Your task to perform on an android device: open chrome and create a bookmark for the current page Image 0: 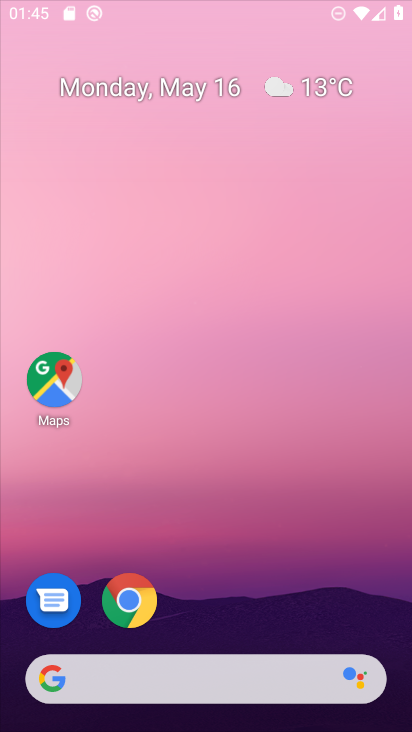
Step 0: click (236, 68)
Your task to perform on an android device: open chrome and create a bookmark for the current page Image 1: 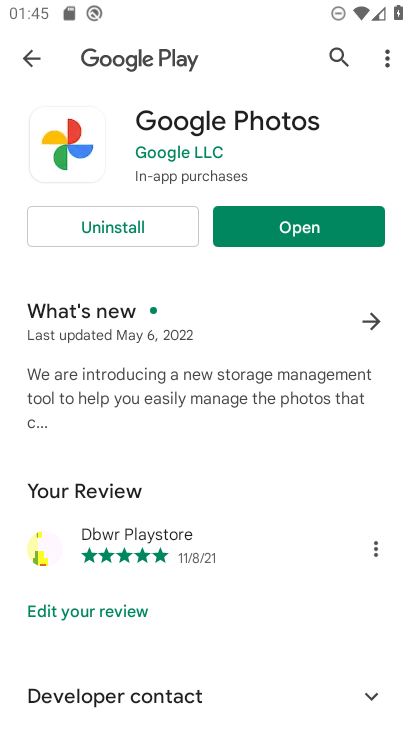
Step 1: press home button
Your task to perform on an android device: open chrome and create a bookmark for the current page Image 2: 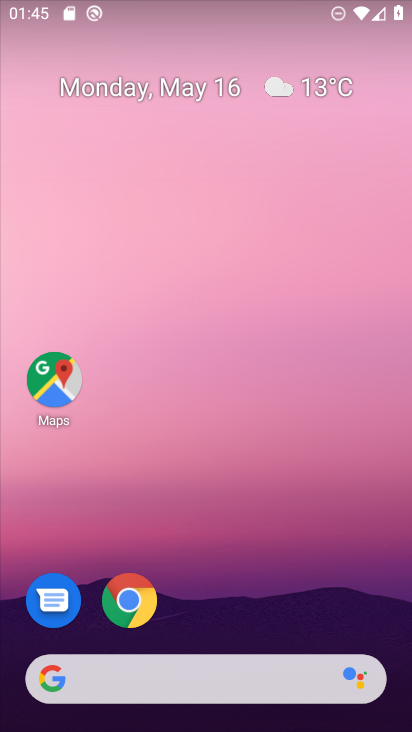
Step 2: click (128, 589)
Your task to perform on an android device: open chrome and create a bookmark for the current page Image 3: 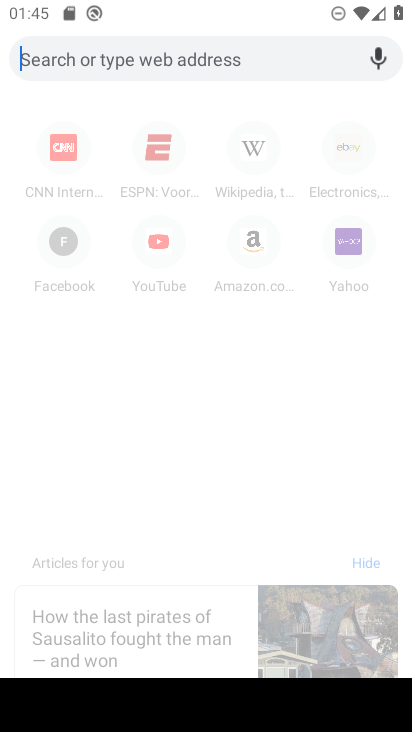
Step 3: press back button
Your task to perform on an android device: open chrome and create a bookmark for the current page Image 4: 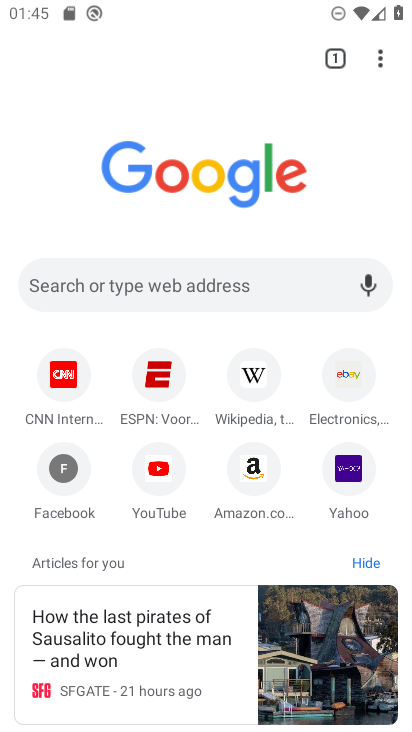
Step 4: click (381, 43)
Your task to perform on an android device: open chrome and create a bookmark for the current page Image 5: 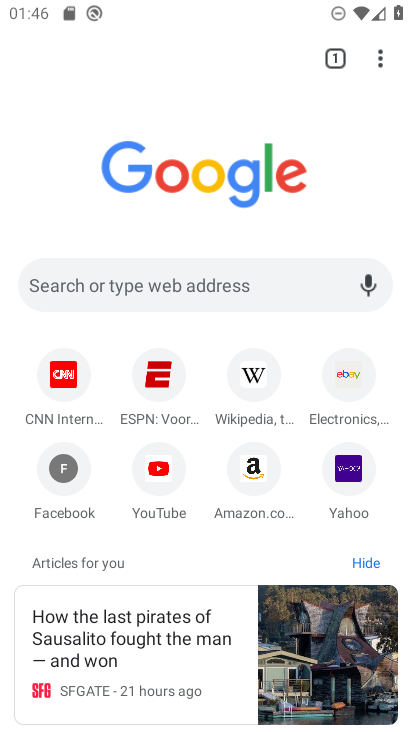
Step 5: click (376, 57)
Your task to perform on an android device: open chrome and create a bookmark for the current page Image 6: 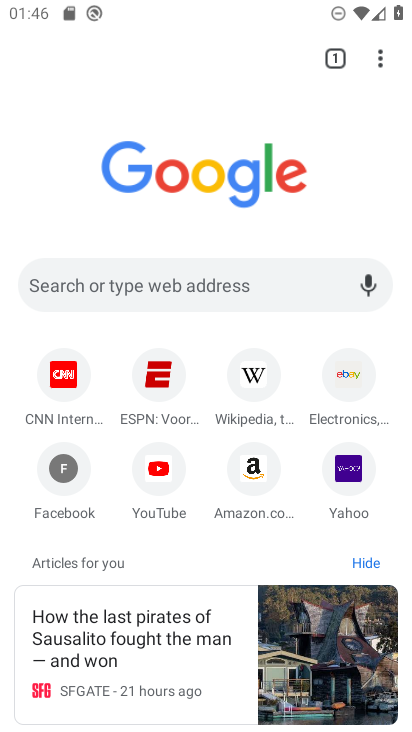
Step 6: click (379, 50)
Your task to perform on an android device: open chrome and create a bookmark for the current page Image 7: 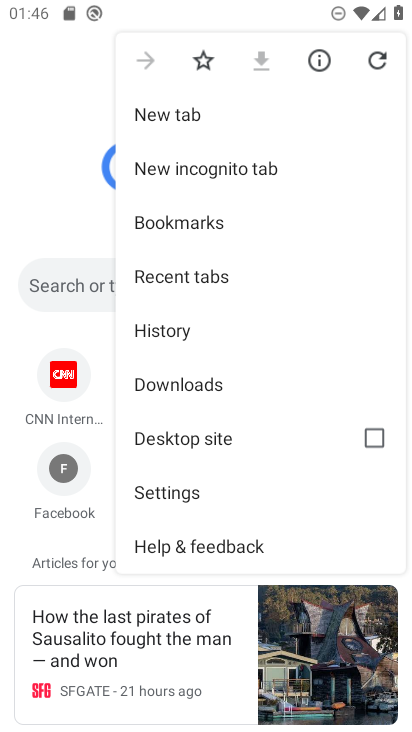
Step 7: click (231, 222)
Your task to perform on an android device: open chrome and create a bookmark for the current page Image 8: 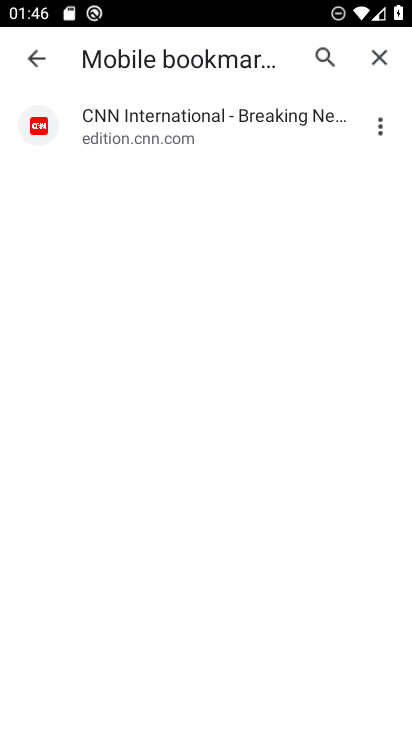
Step 8: click (378, 57)
Your task to perform on an android device: open chrome and create a bookmark for the current page Image 9: 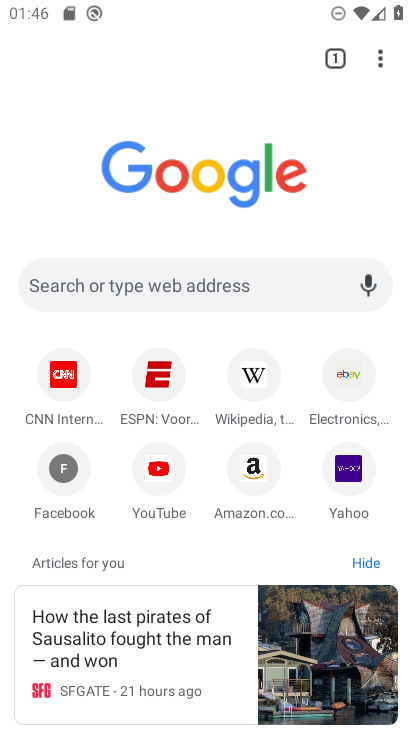
Step 9: click (379, 59)
Your task to perform on an android device: open chrome and create a bookmark for the current page Image 10: 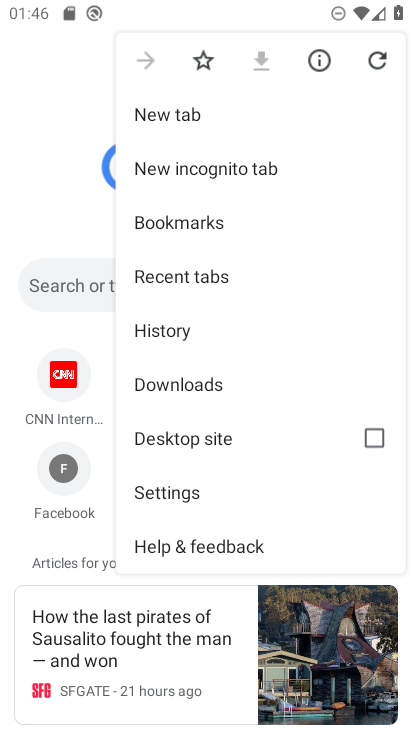
Step 10: click (201, 67)
Your task to perform on an android device: open chrome and create a bookmark for the current page Image 11: 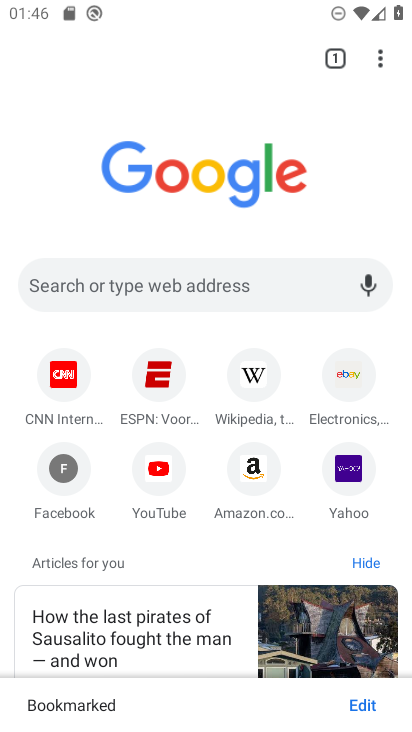
Step 11: task complete